Your task to perform on an android device: Open settings Image 0: 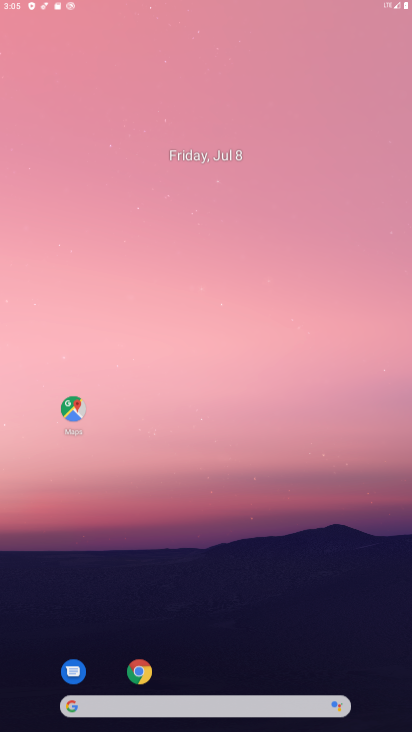
Step 0: click (281, 194)
Your task to perform on an android device: Open settings Image 1: 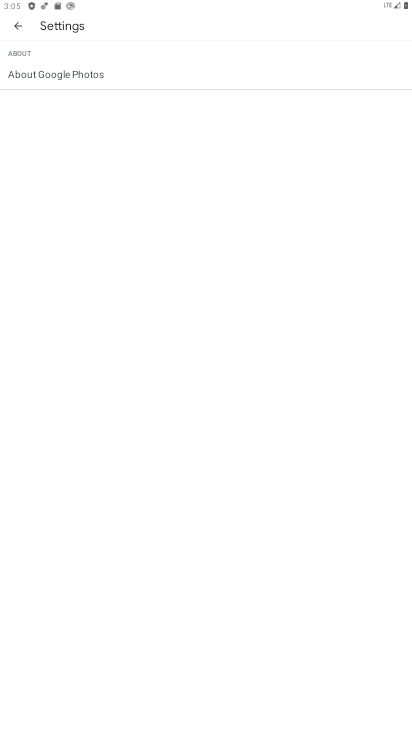
Step 1: press home button
Your task to perform on an android device: Open settings Image 2: 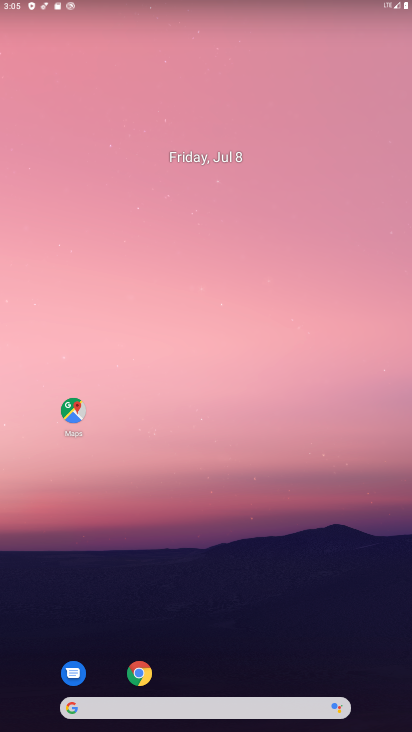
Step 2: drag from (212, 696) to (295, 161)
Your task to perform on an android device: Open settings Image 3: 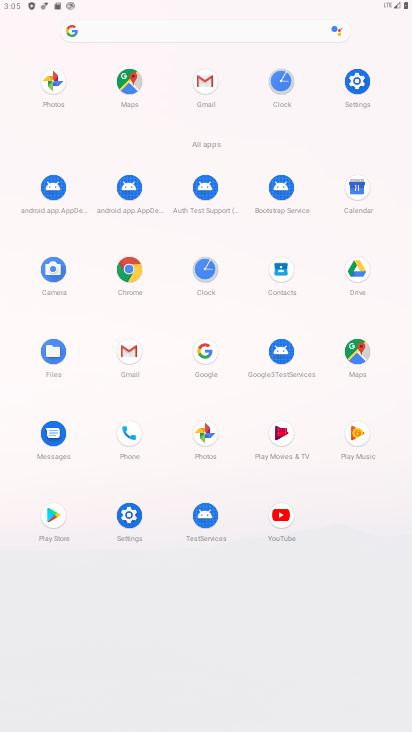
Step 3: click (119, 523)
Your task to perform on an android device: Open settings Image 4: 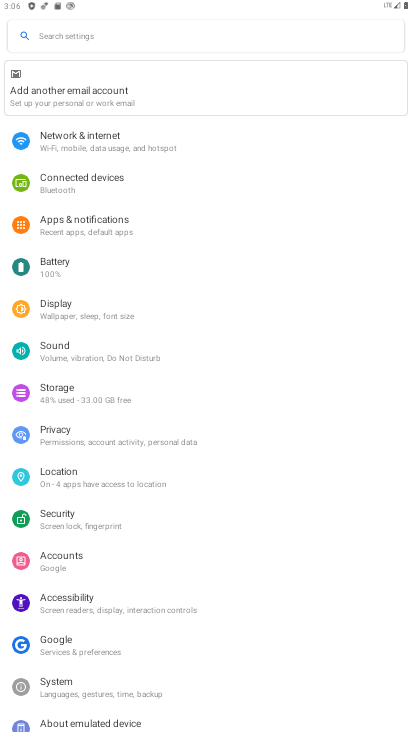
Step 4: task complete